Your task to perform on an android device: Open accessibility settings Image 0: 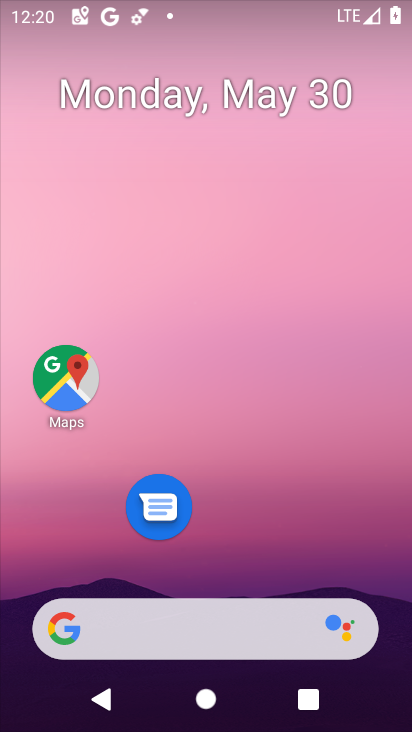
Step 0: drag from (261, 522) to (267, 115)
Your task to perform on an android device: Open accessibility settings Image 1: 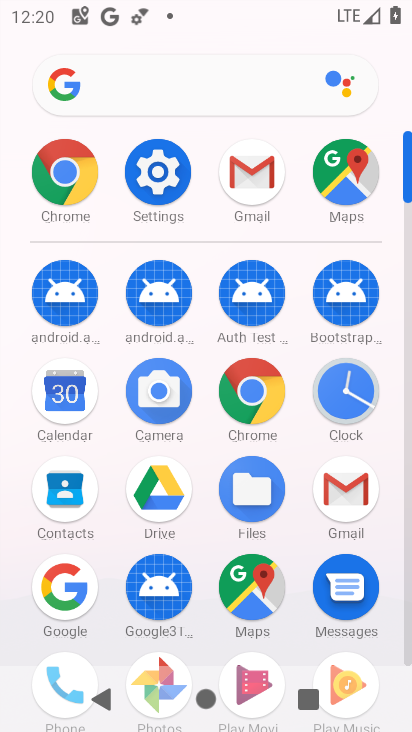
Step 1: click (158, 168)
Your task to perform on an android device: Open accessibility settings Image 2: 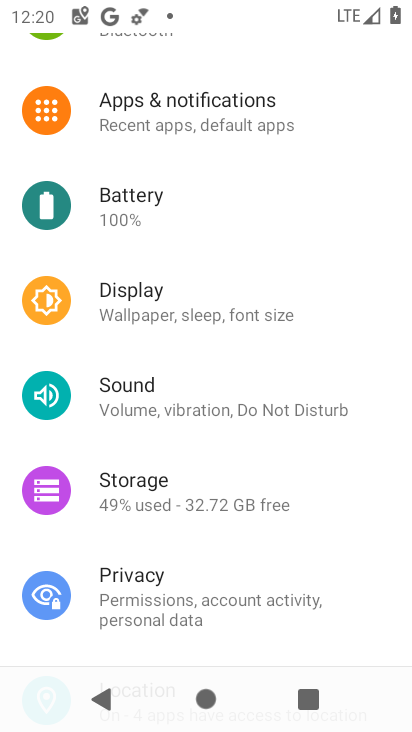
Step 2: drag from (238, 588) to (285, 167)
Your task to perform on an android device: Open accessibility settings Image 3: 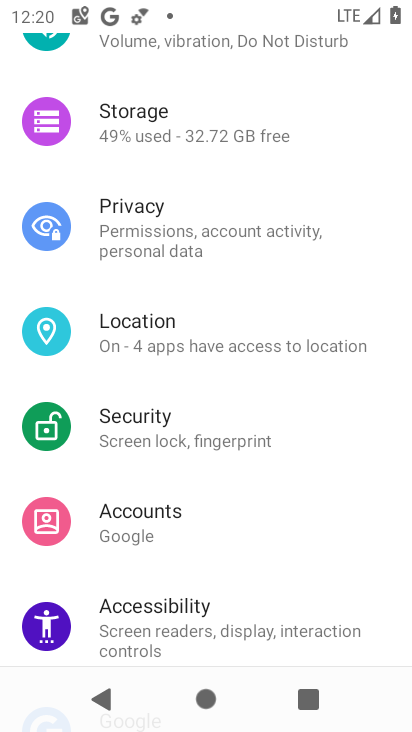
Step 3: click (116, 625)
Your task to perform on an android device: Open accessibility settings Image 4: 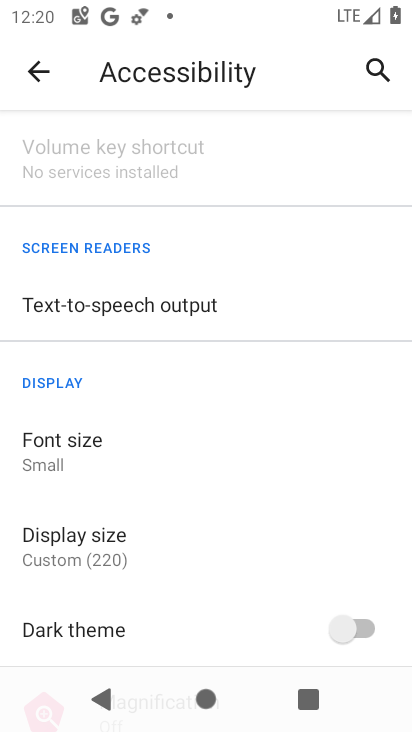
Step 4: task complete